Your task to perform on an android device: Turn off the flashlight Image 0: 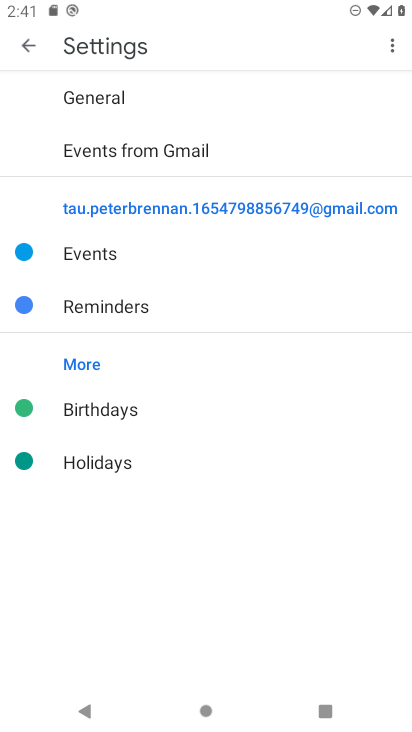
Step 0: press home button
Your task to perform on an android device: Turn off the flashlight Image 1: 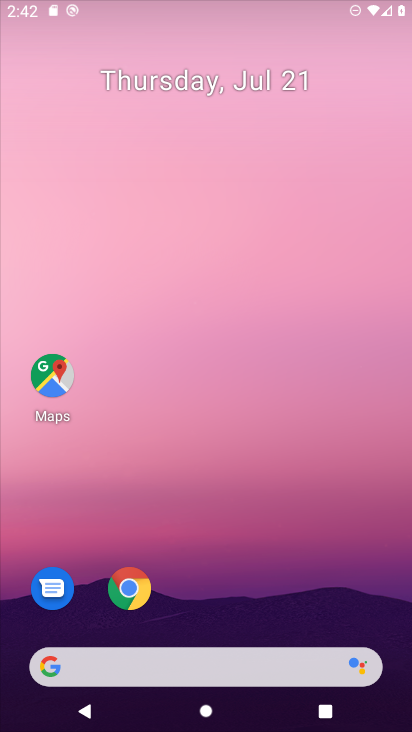
Step 1: task complete